Your task to perform on an android device: toggle javascript in the chrome app Image 0: 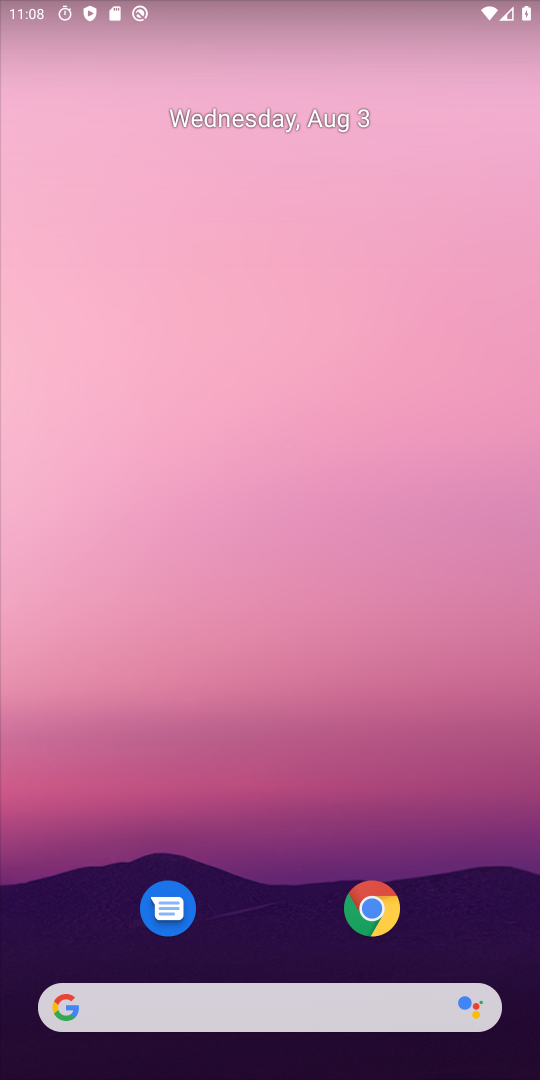
Step 0: press home button
Your task to perform on an android device: toggle javascript in the chrome app Image 1: 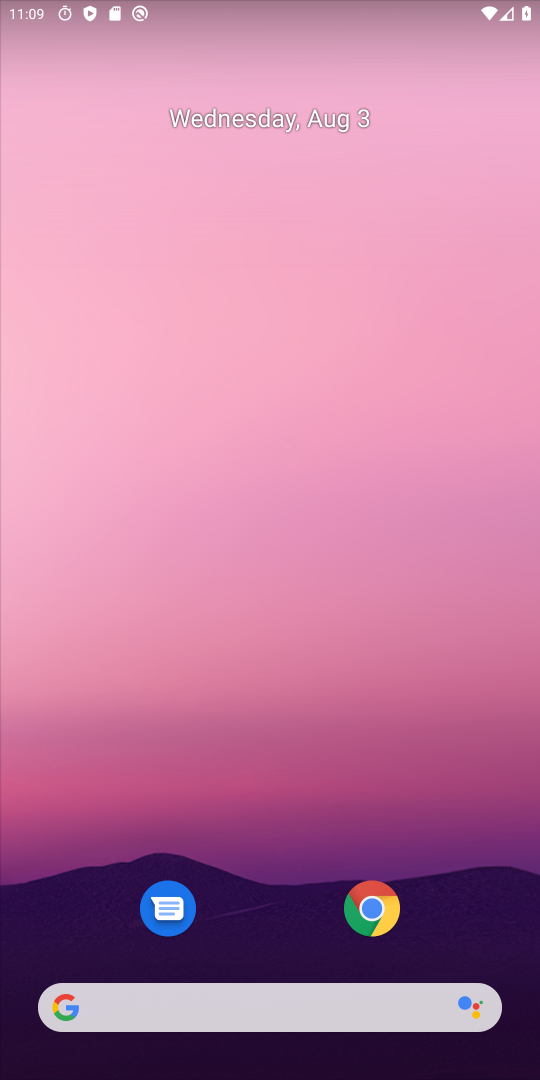
Step 1: drag from (270, 1022) to (353, 444)
Your task to perform on an android device: toggle javascript in the chrome app Image 2: 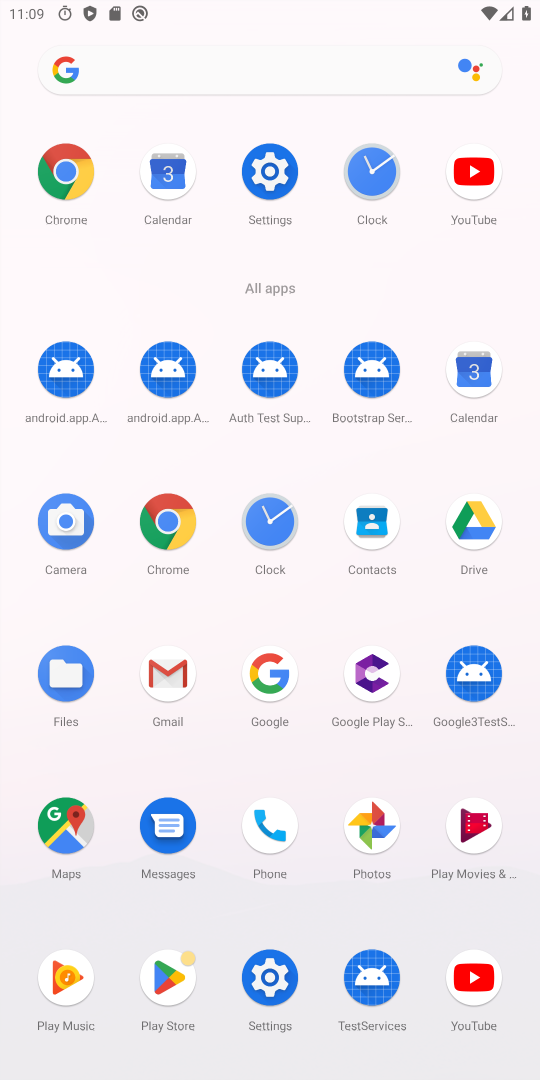
Step 2: click (80, 188)
Your task to perform on an android device: toggle javascript in the chrome app Image 3: 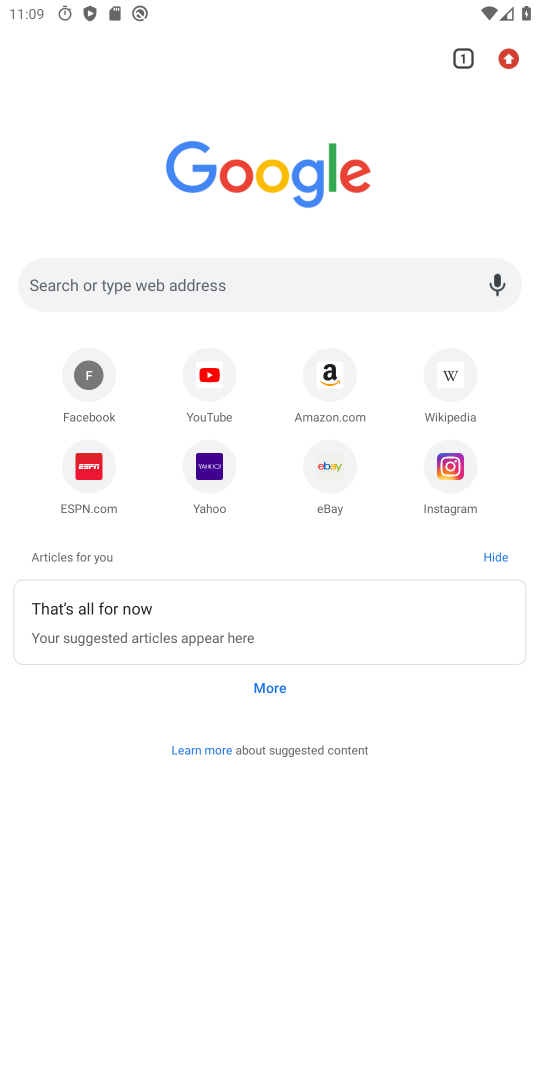
Step 3: click (518, 52)
Your task to perform on an android device: toggle javascript in the chrome app Image 4: 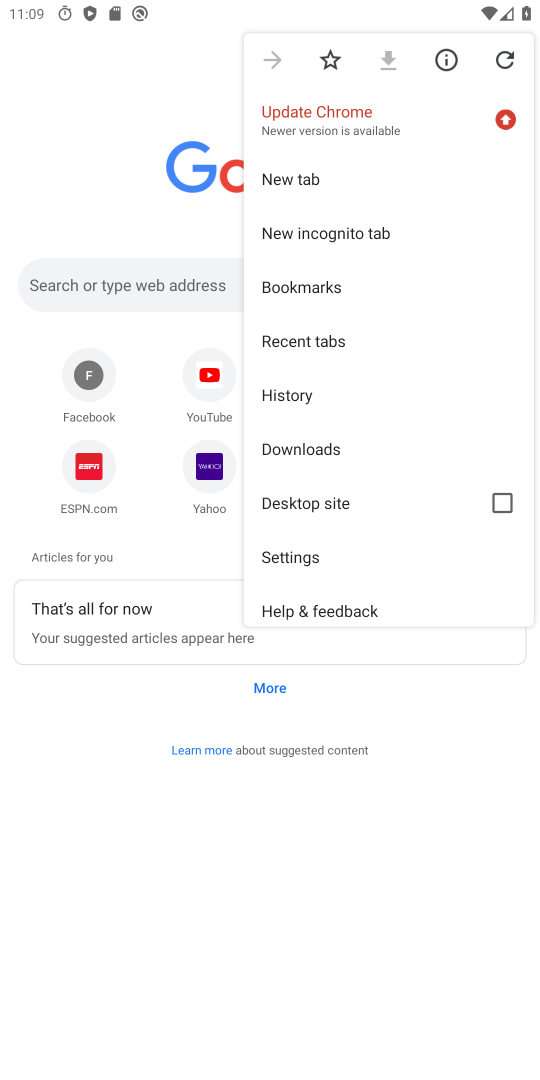
Step 4: click (294, 553)
Your task to perform on an android device: toggle javascript in the chrome app Image 5: 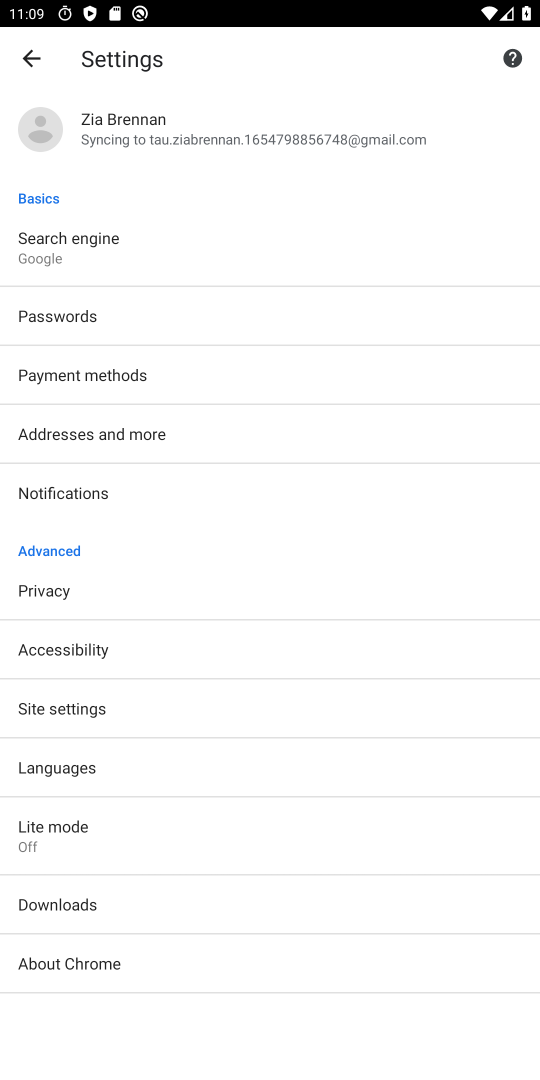
Step 5: click (114, 710)
Your task to perform on an android device: toggle javascript in the chrome app Image 6: 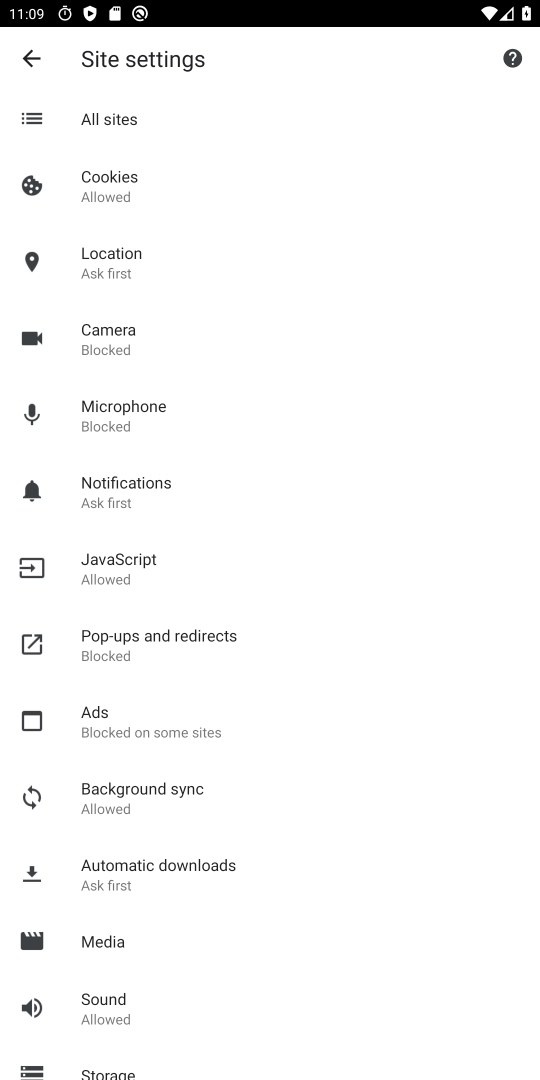
Step 6: click (189, 560)
Your task to perform on an android device: toggle javascript in the chrome app Image 7: 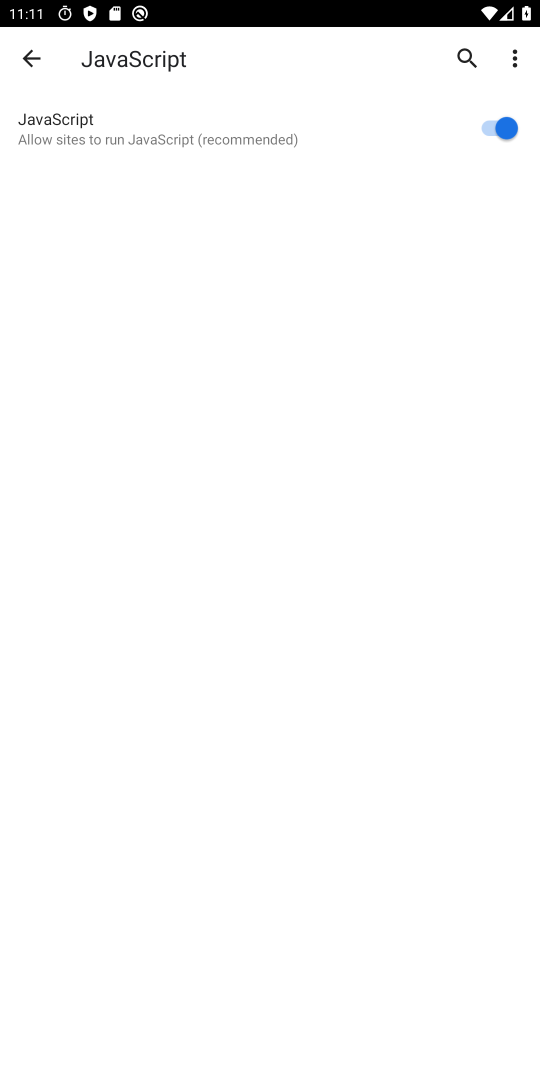
Step 7: task complete